Your task to perform on an android device: choose inbox layout in the gmail app Image 0: 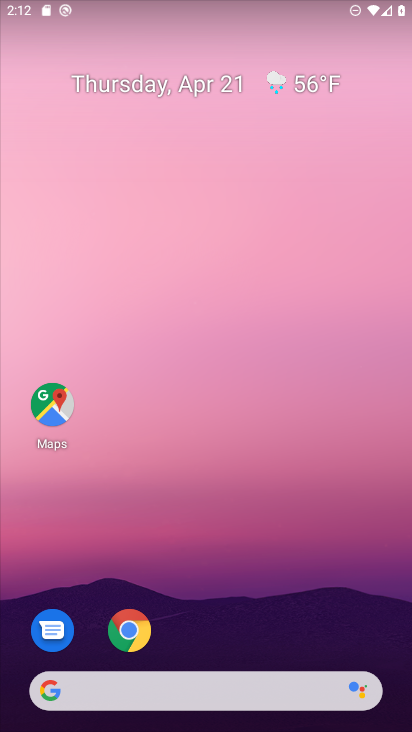
Step 0: drag from (206, 689) to (162, 16)
Your task to perform on an android device: choose inbox layout in the gmail app Image 1: 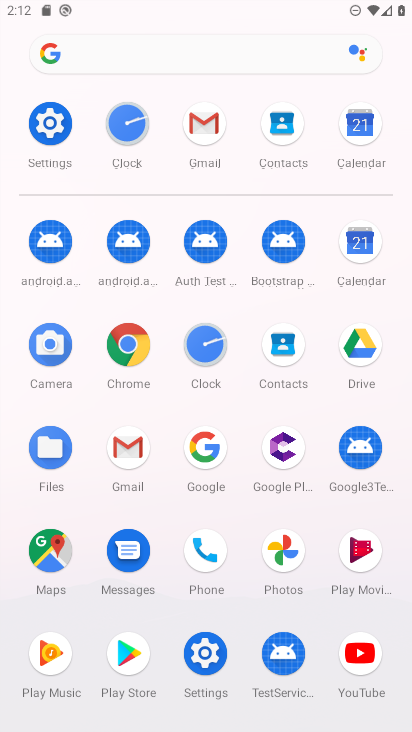
Step 1: click (113, 442)
Your task to perform on an android device: choose inbox layout in the gmail app Image 2: 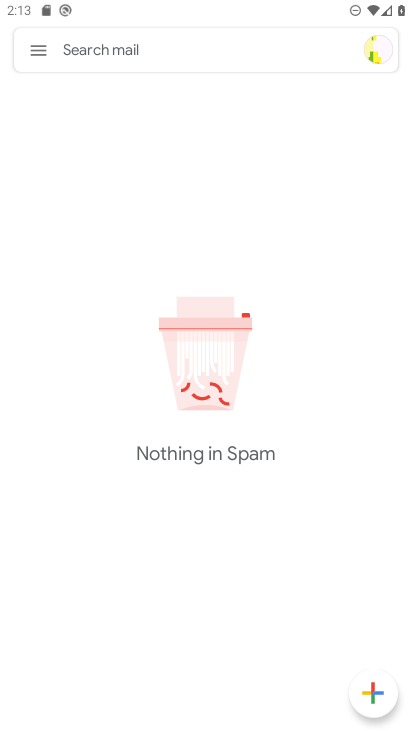
Step 2: click (38, 59)
Your task to perform on an android device: choose inbox layout in the gmail app Image 3: 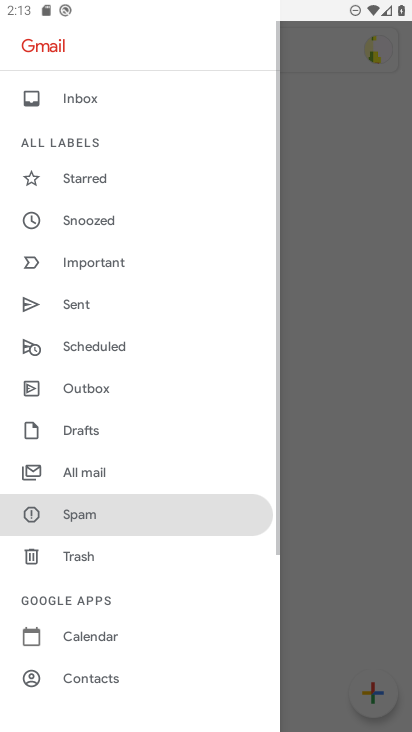
Step 3: drag from (84, 691) to (83, 75)
Your task to perform on an android device: choose inbox layout in the gmail app Image 4: 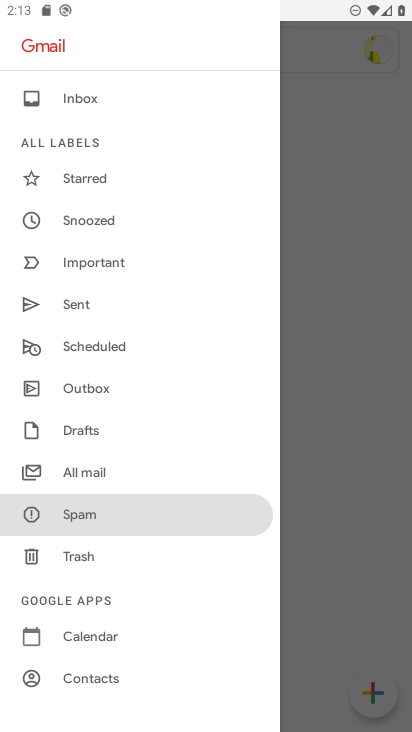
Step 4: drag from (165, 635) to (149, 76)
Your task to perform on an android device: choose inbox layout in the gmail app Image 5: 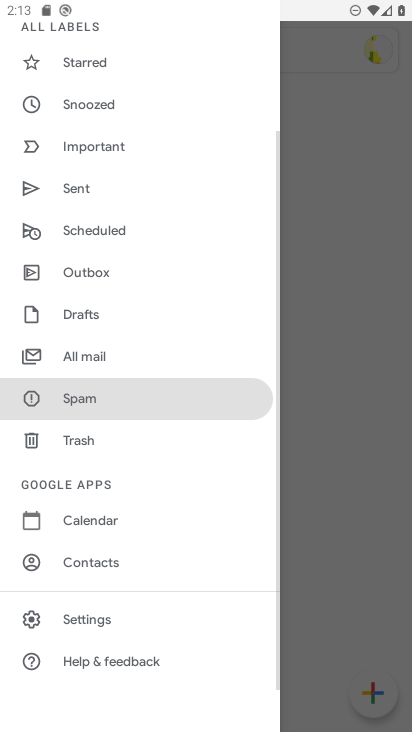
Step 5: click (86, 626)
Your task to perform on an android device: choose inbox layout in the gmail app Image 6: 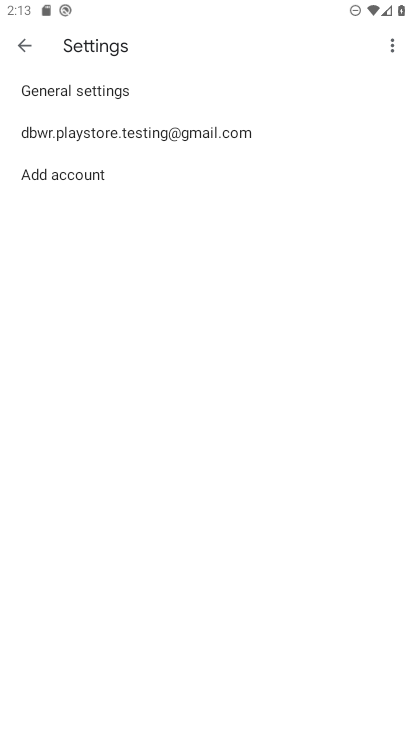
Step 6: click (123, 146)
Your task to perform on an android device: choose inbox layout in the gmail app Image 7: 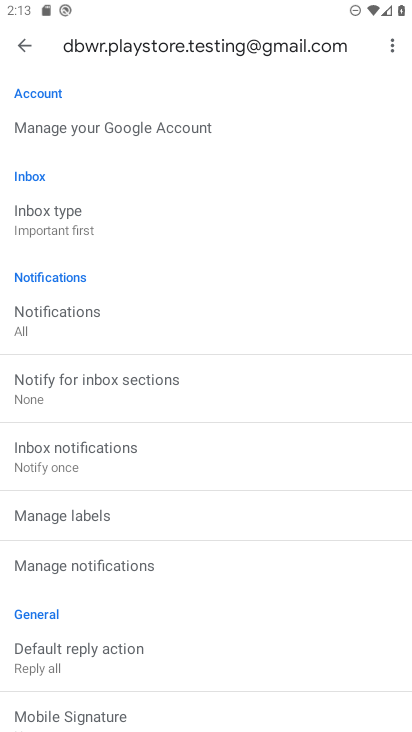
Step 7: click (96, 213)
Your task to perform on an android device: choose inbox layout in the gmail app Image 8: 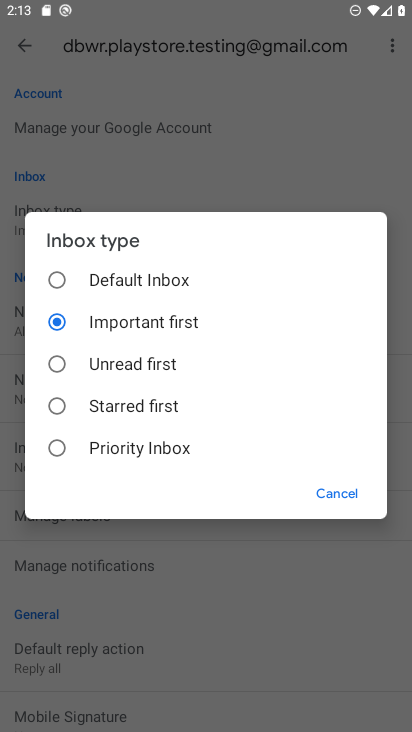
Step 8: click (120, 453)
Your task to perform on an android device: choose inbox layout in the gmail app Image 9: 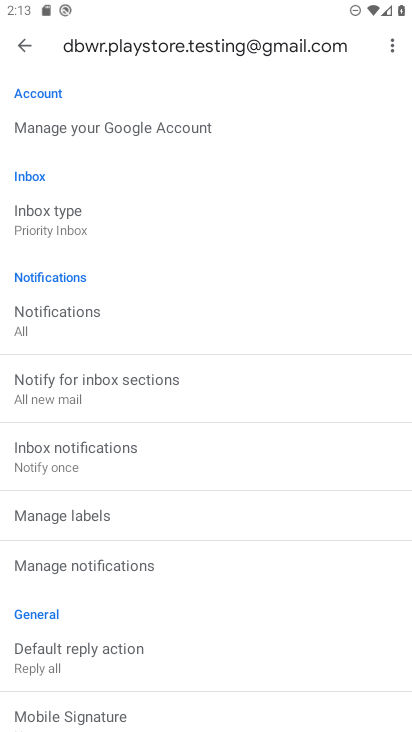
Step 9: task complete